Your task to perform on an android device: Open Amazon Image 0: 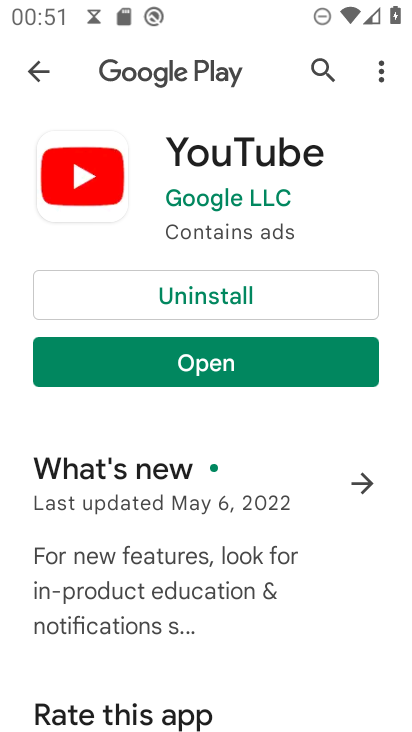
Step 0: press home button
Your task to perform on an android device: Open Amazon Image 1: 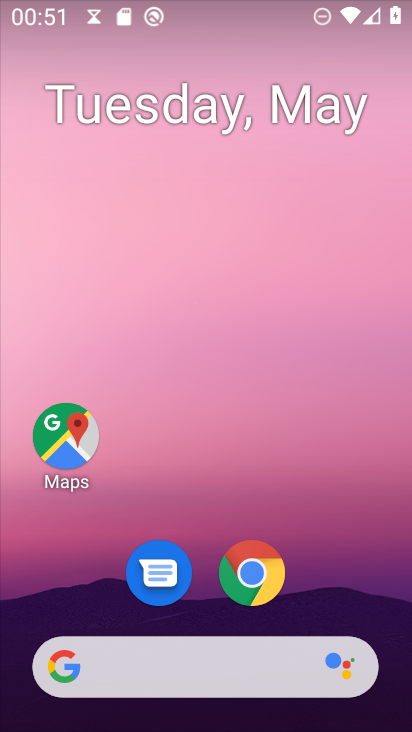
Step 1: click (249, 557)
Your task to perform on an android device: Open Amazon Image 2: 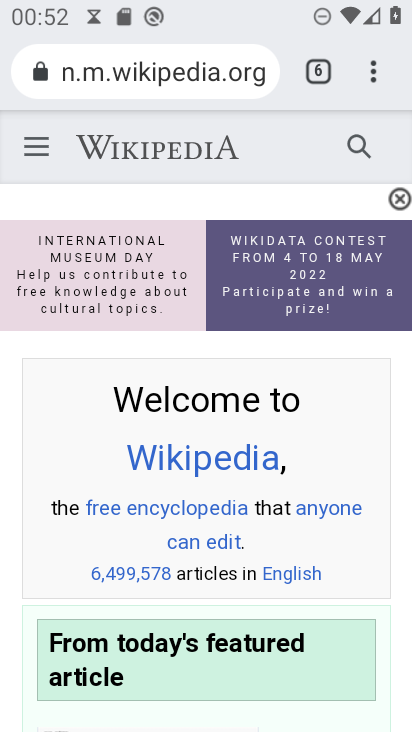
Step 2: click (310, 68)
Your task to perform on an android device: Open Amazon Image 3: 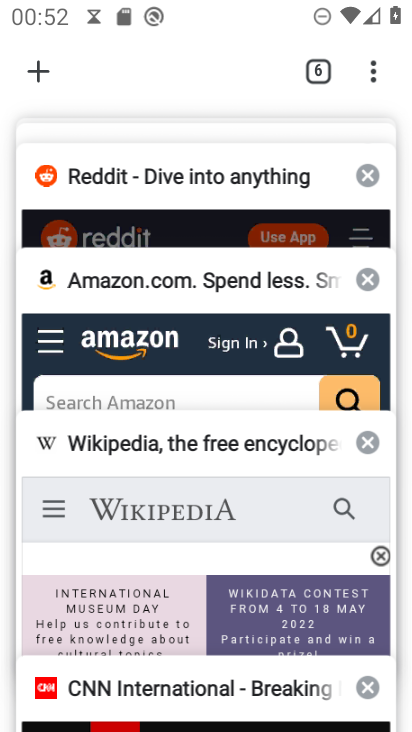
Step 3: click (39, 67)
Your task to perform on an android device: Open Amazon Image 4: 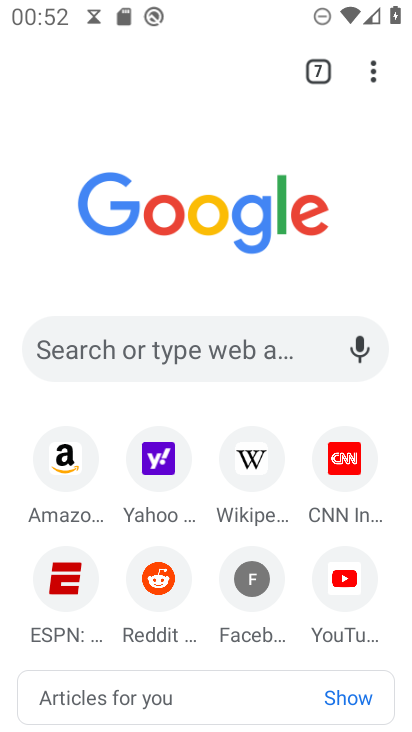
Step 4: click (62, 461)
Your task to perform on an android device: Open Amazon Image 5: 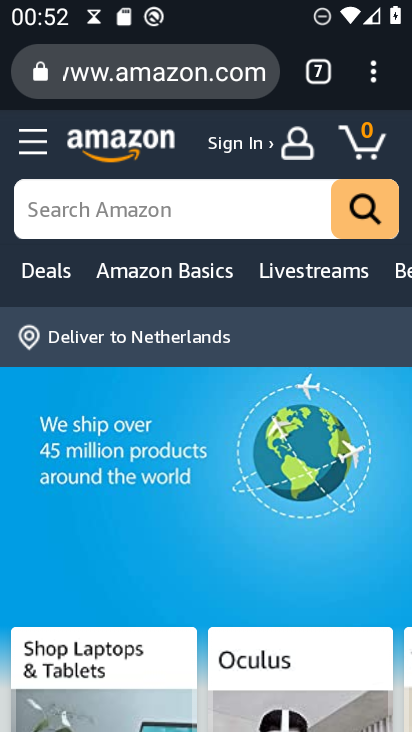
Step 5: task complete